Your task to perform on an android device: Set the phone to "Do not disturb". Image 0: 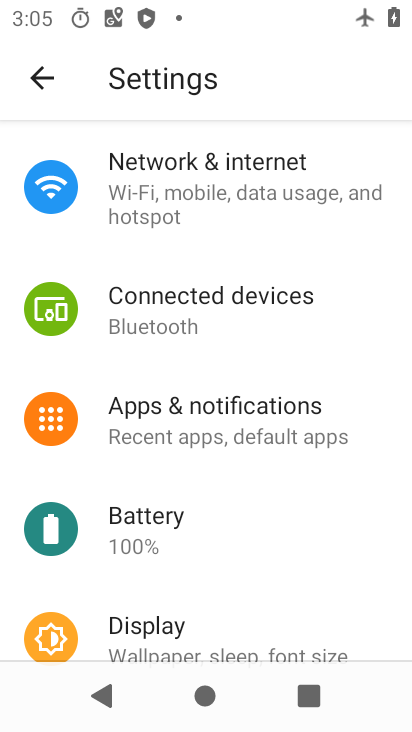
Step 0: press home button
Your task to perform on an android device: Set the phone to "Do not disturb". Image 1: 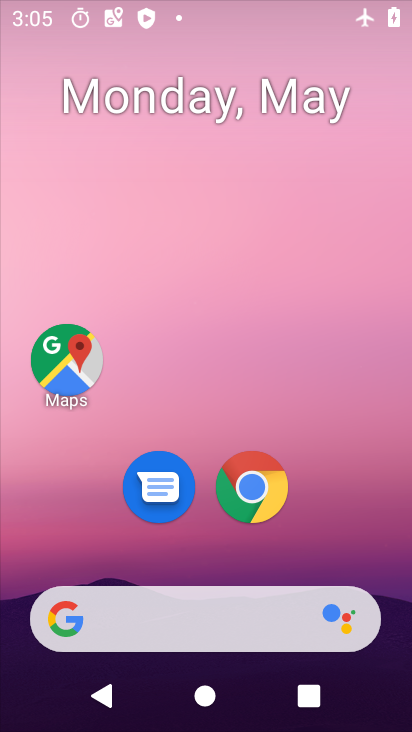
Step 1: drag from (250, 542) to (246, 0)
Your task to perform on an android device: Set the phone to "Do not disturb". Image 2: 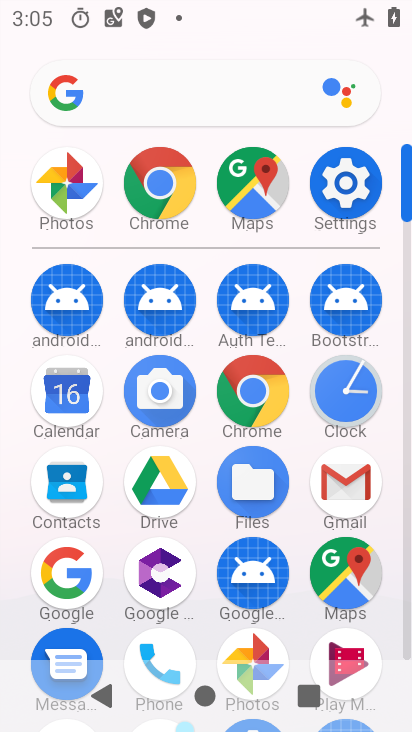
Step 2: click (375, 190)
Your task to perform on an android device: Set the phone to "Do not disturb". Image 3: 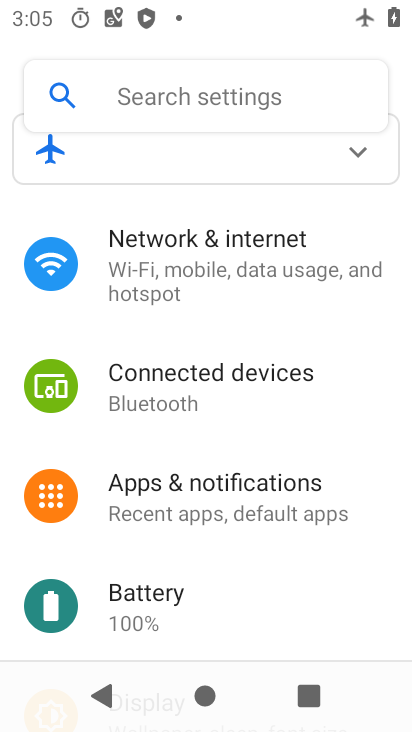
Step 3: drag from (184, 595) to (265, 101)
Your task to perform on an android device: Set the phone to "Do not disturb". Image 4: 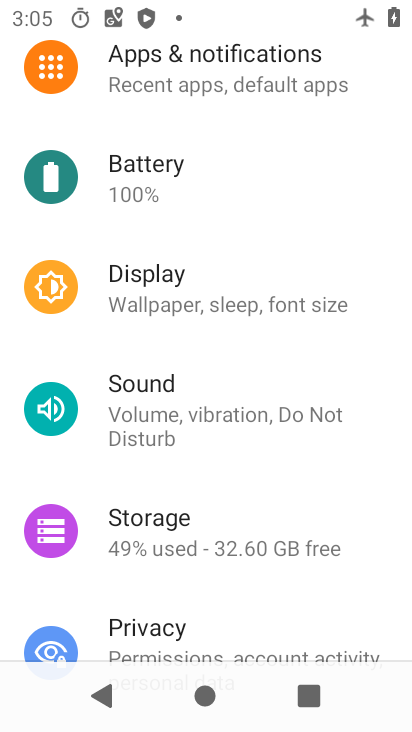
Step 4: click (181, 412)
Your task to perform on an android device: Set the phone to "Do not disturb". Image 5: 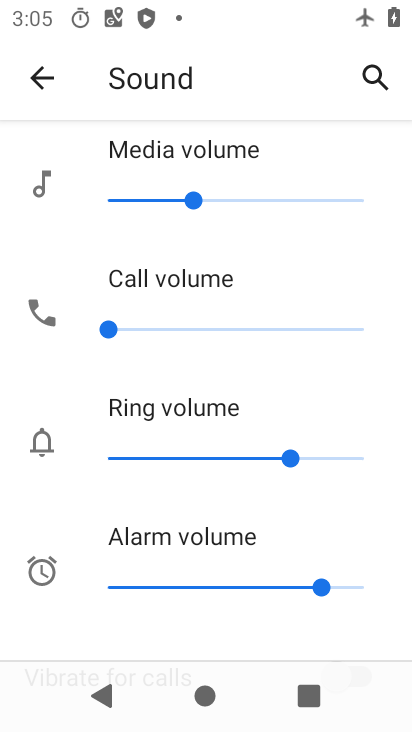
Step 5: drag from (189, 481) to (283, 93)
Your task to perform on an android device: Set the phone to "Do not disturb". Image 6: 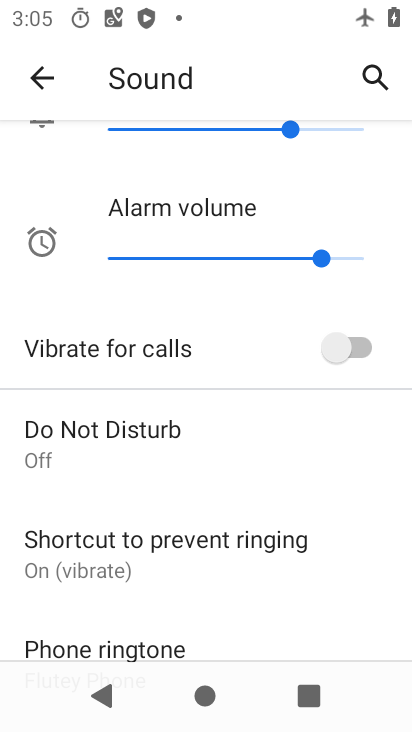
Step 6: click (93, 452)
Your task to perform on an android device: Set the phone to "Do not disturb". Image 7: 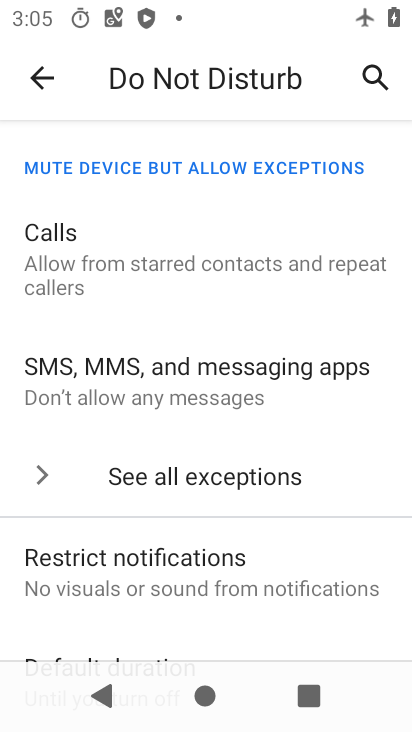
Step 7: drag from (199, 500) to (232, 107)
Your task to perform on an android device: Set the phone to "Do not disturb". Image 8: 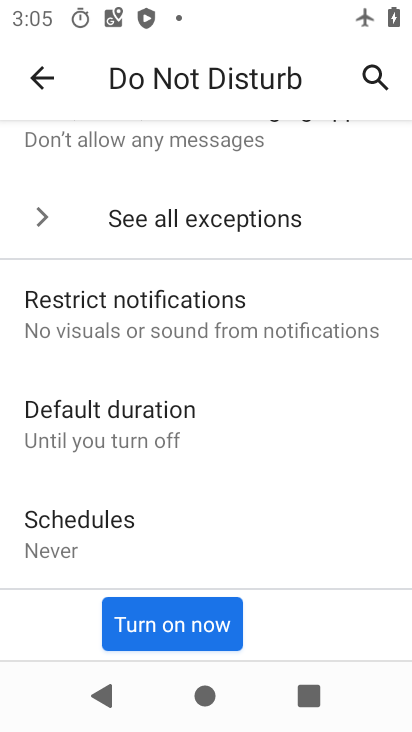
Step 8: click (161, 625)
Your task to perform on an android device: Set the phone to "Do not disturb". Image 9: 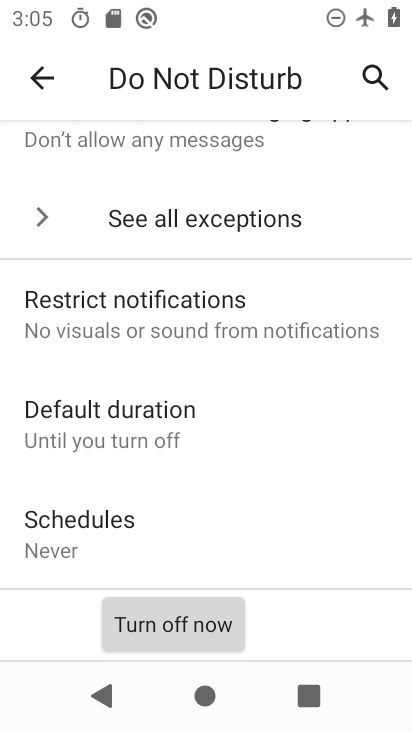
Step 9: task complete